Your task to perform on an android device: turn on bluetooth scan Image 0: 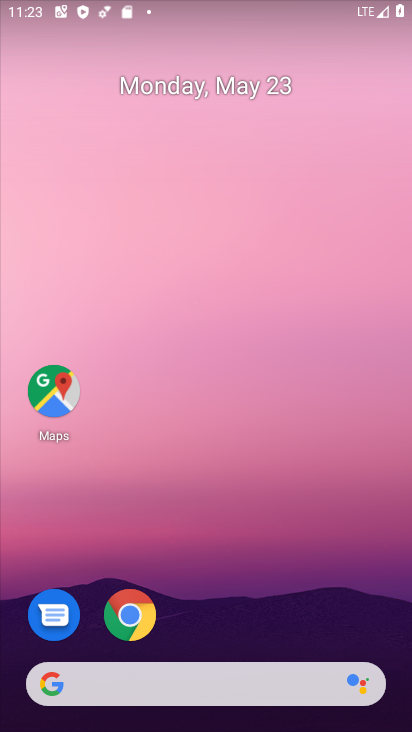
Step 0: click (256, 629)
Your task to perform on an android device: turn on bluetooth scan Image 1: 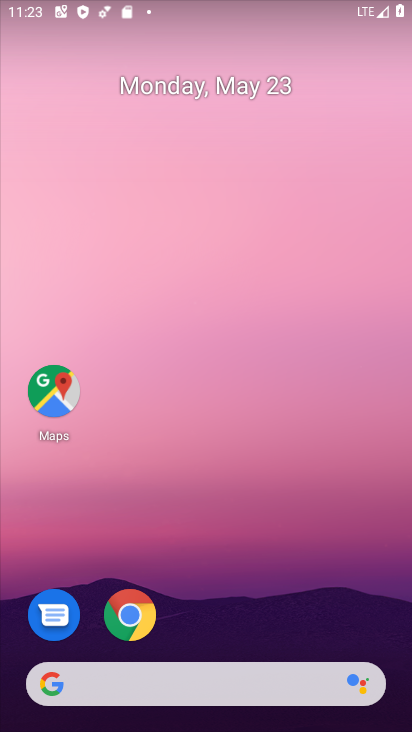
Step 1: drag from (256, 629) to (291, 147)
Your task to perform on an android device: turn on bluetooth scan Image 2: 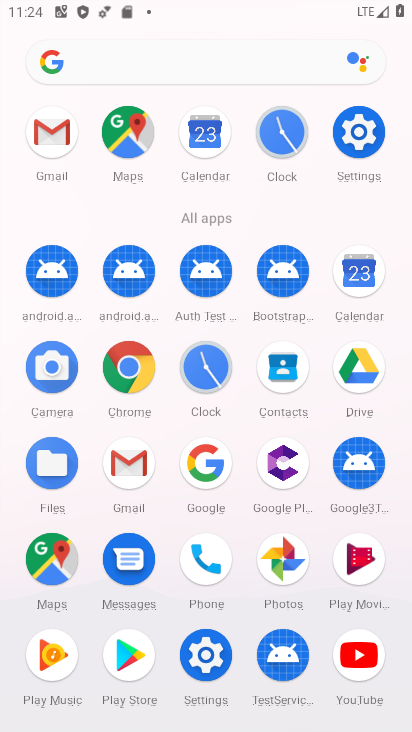
Step 2: click (196, 650)
Your task to perform on an android device: turn on bluetooth scan Image 3: 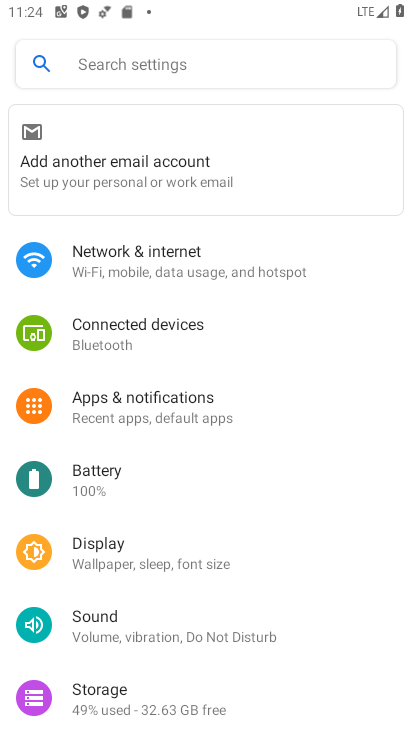
Step 3: drag from (99, 649) to (195, 313)
Your task to perform on an android device: turn on bluetooth scan Image 4: 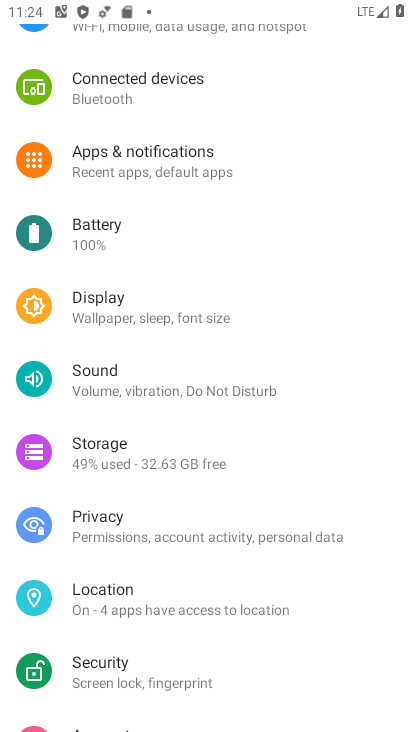
Step 4: click (118, 648)
Your task to perform on an android device: turn on bluetooth scan Image 5: 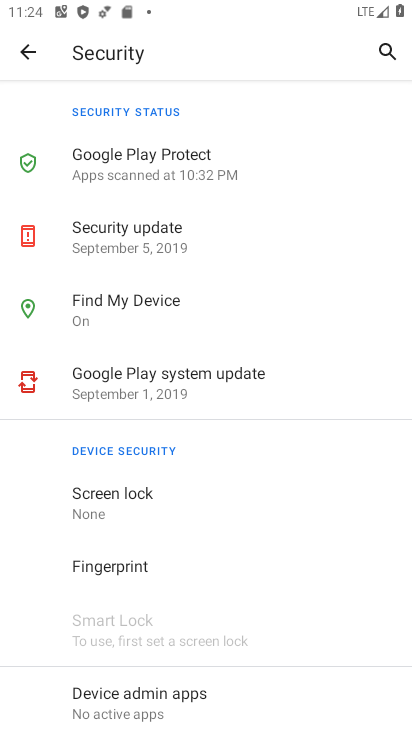
Step 5: drag from (166, 627) to (283, 180)
Your task to perform on an android device: turn on bluetooth scan Image 6: 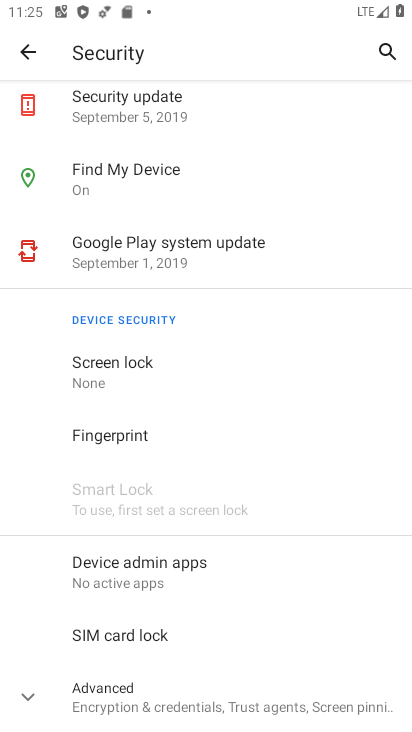
Step 6: drag from (130, 663) to (148, 262)
Your task to perform on an android device: turn on bluetooth scan Image 7: 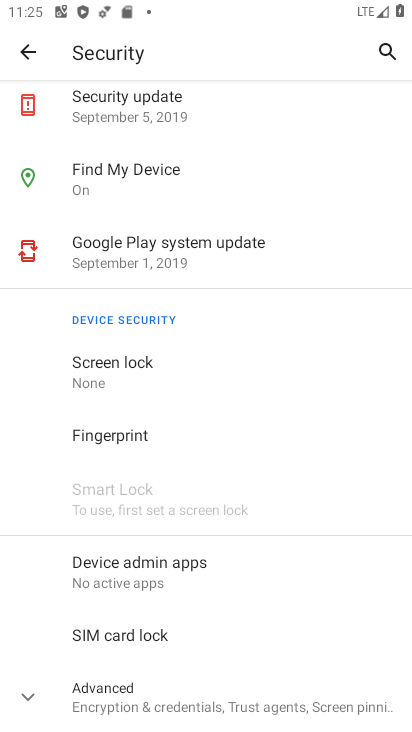
Step 7: drag from (152, 171) to (165, 540)
Your task to perform on an android device: turn on bluetooth scan Image 8: 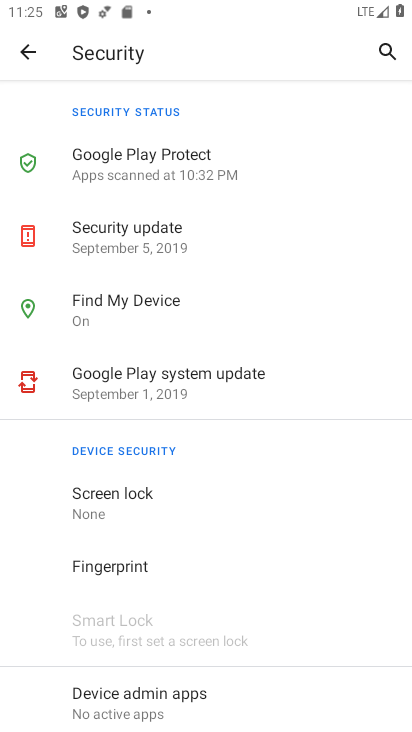
Step 8: click (24, 52)
Your task to perform on an android device: turn on bluetooth scan Image 9: 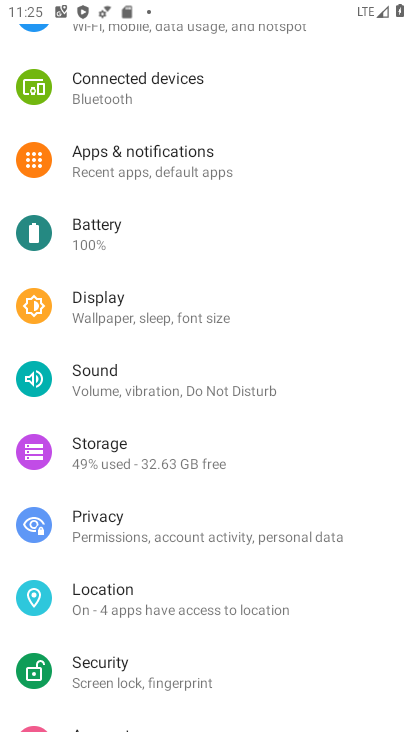
Step 9: drag from (190, 127) to (219, 539)
Your task to perform on an android device: turn on bluetooth scan Image 10: 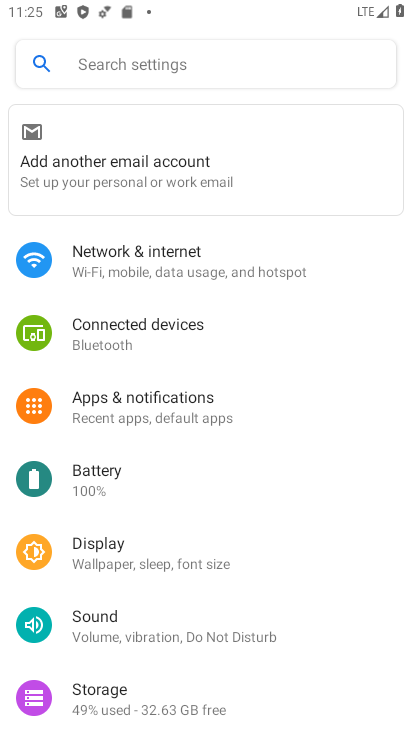
Step 10: click (167, 279)
Your task to perform on an android device: turn on bluetooth scan Image 11: 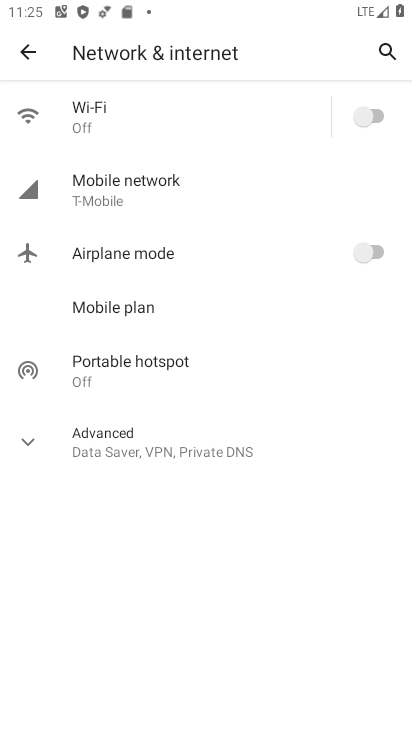
Step 11: click (24, 60)
Your task to perform on an android device: turn on bluetooth scan Image 12: 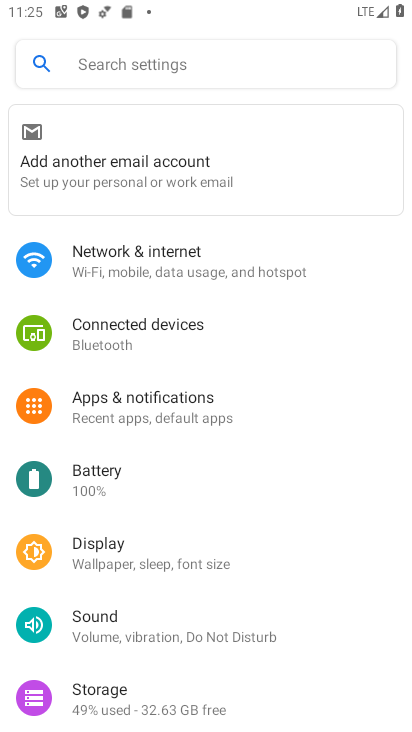
Step 12: drag from (83, 702) to (174, 280)
Your task to perform on an android device: turn on bluetooth scan Image 13: 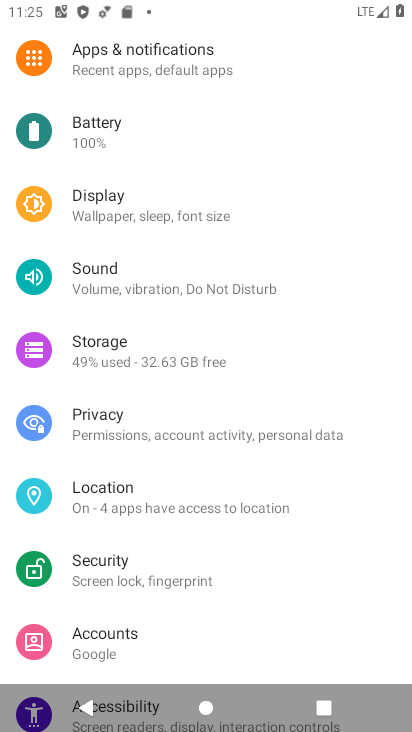
Step 13: click (170, 512)
Your task to perform on an android device: turn on bluetooth scan Image 14: 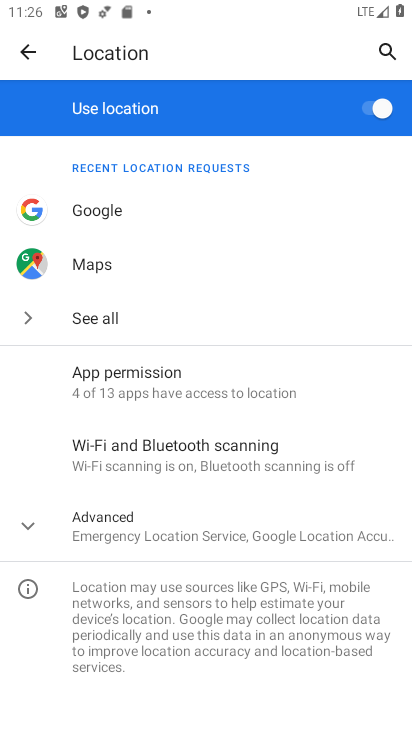
Step 14: click (169, 478)
Your task to perform on an android device: turn on bluetooth scan Image 15: 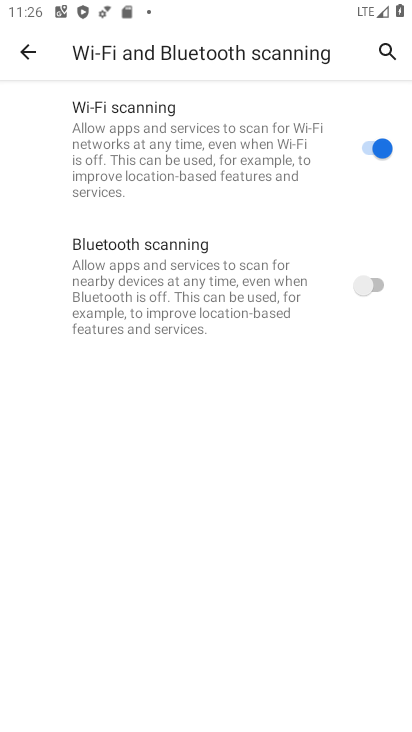
Step 15: click (382, 290)
Your task to perform on an android device: turn on bluetooth scan Image 16: 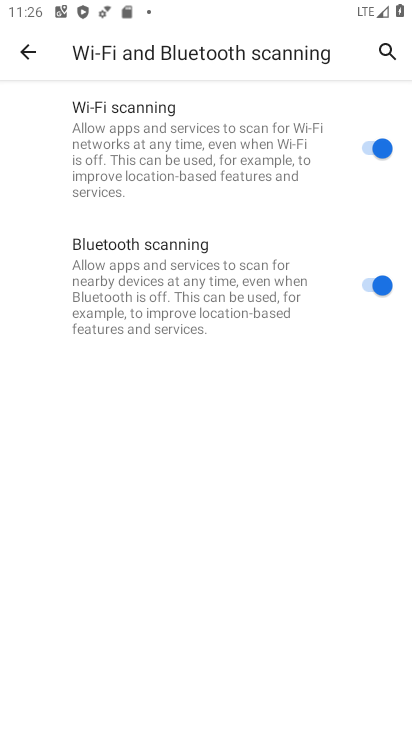
Step 16: task complete